Your task to perform on an android device: install app "Yahoo Mail" Image 0: 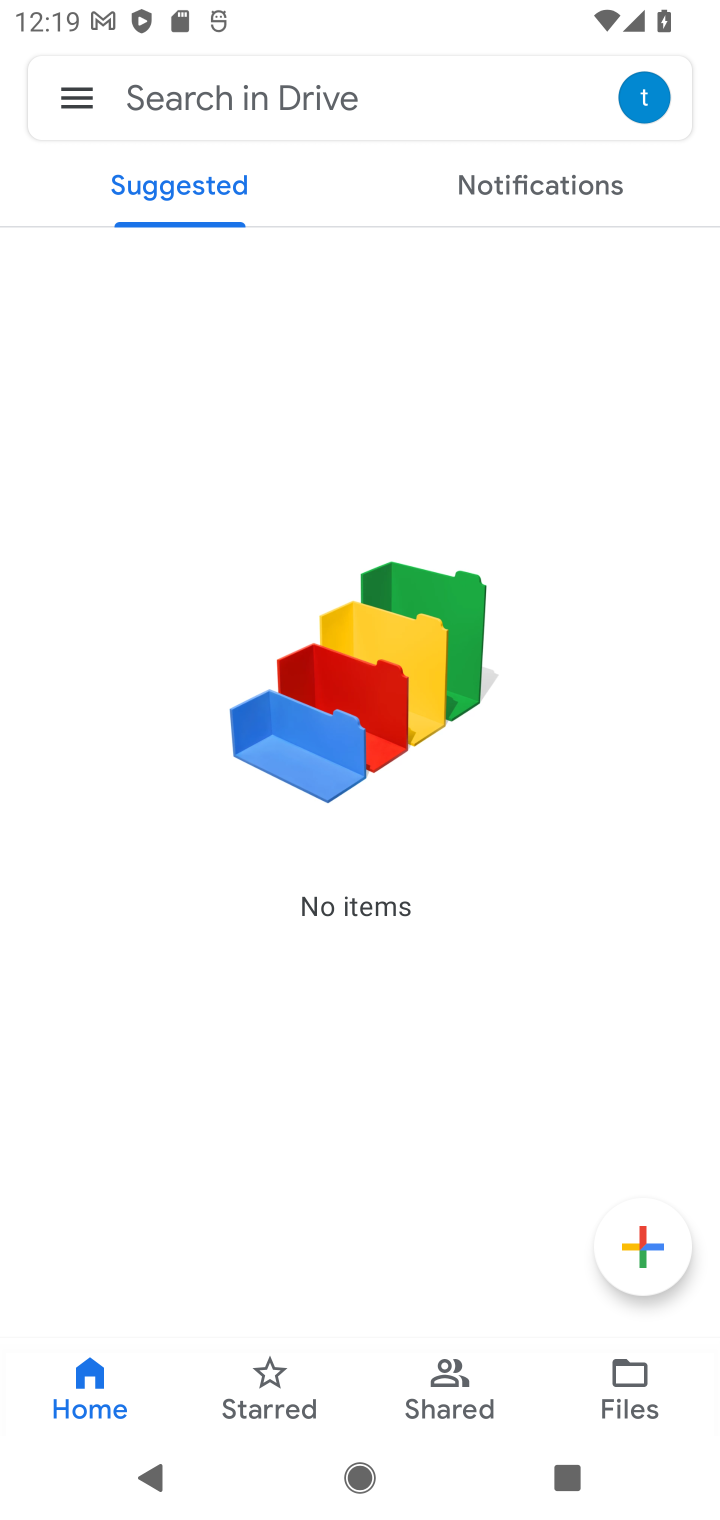
Step 0: press home button
Your task to perform on an android device: install app "Yahoo Mail" Image 1: 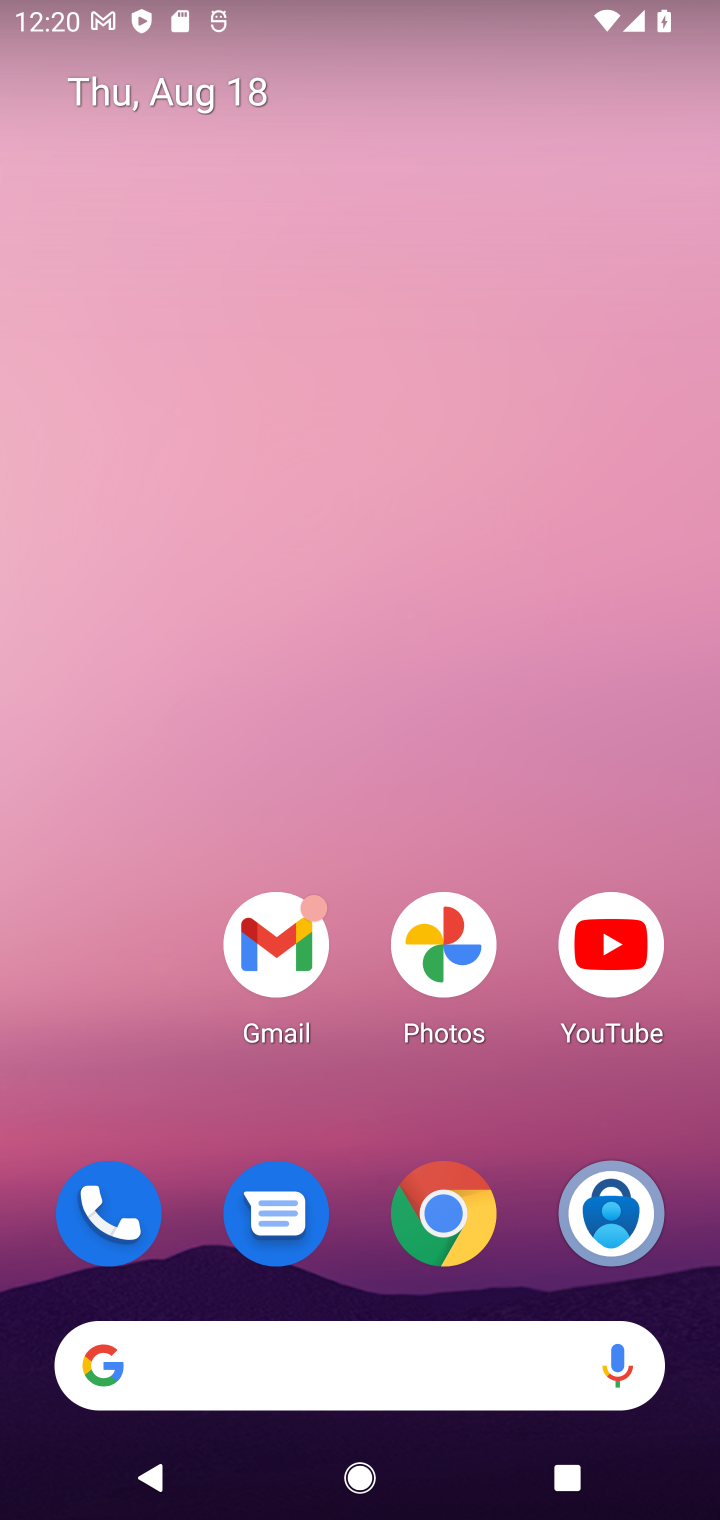
Step 1: drag from (363, 1311) to (337, 169)
Your task to perform on an android device: install app "Yahoo Mail" Image 2: 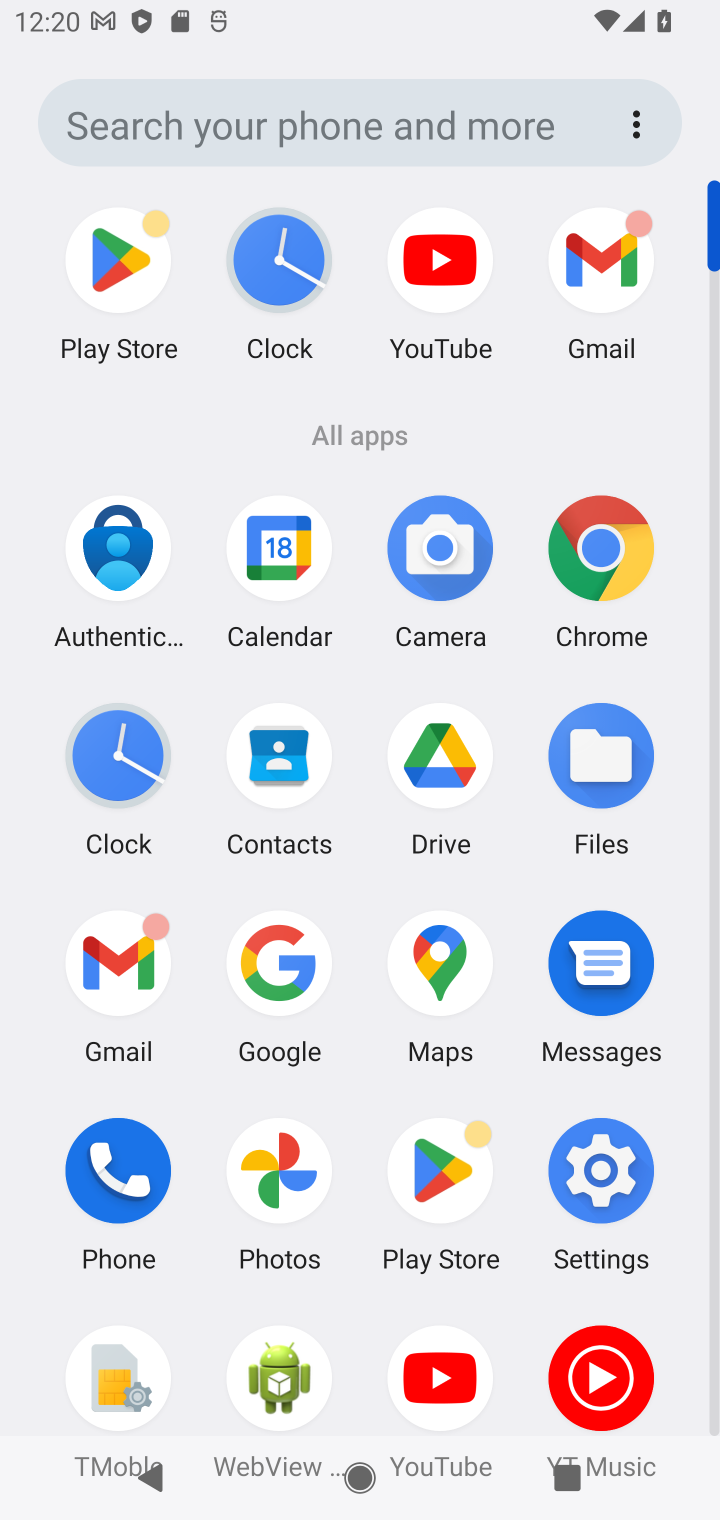
Step 2: click (133, 249)
Your task to perform on an android device: install app "Yahoo Mail" Image 3: 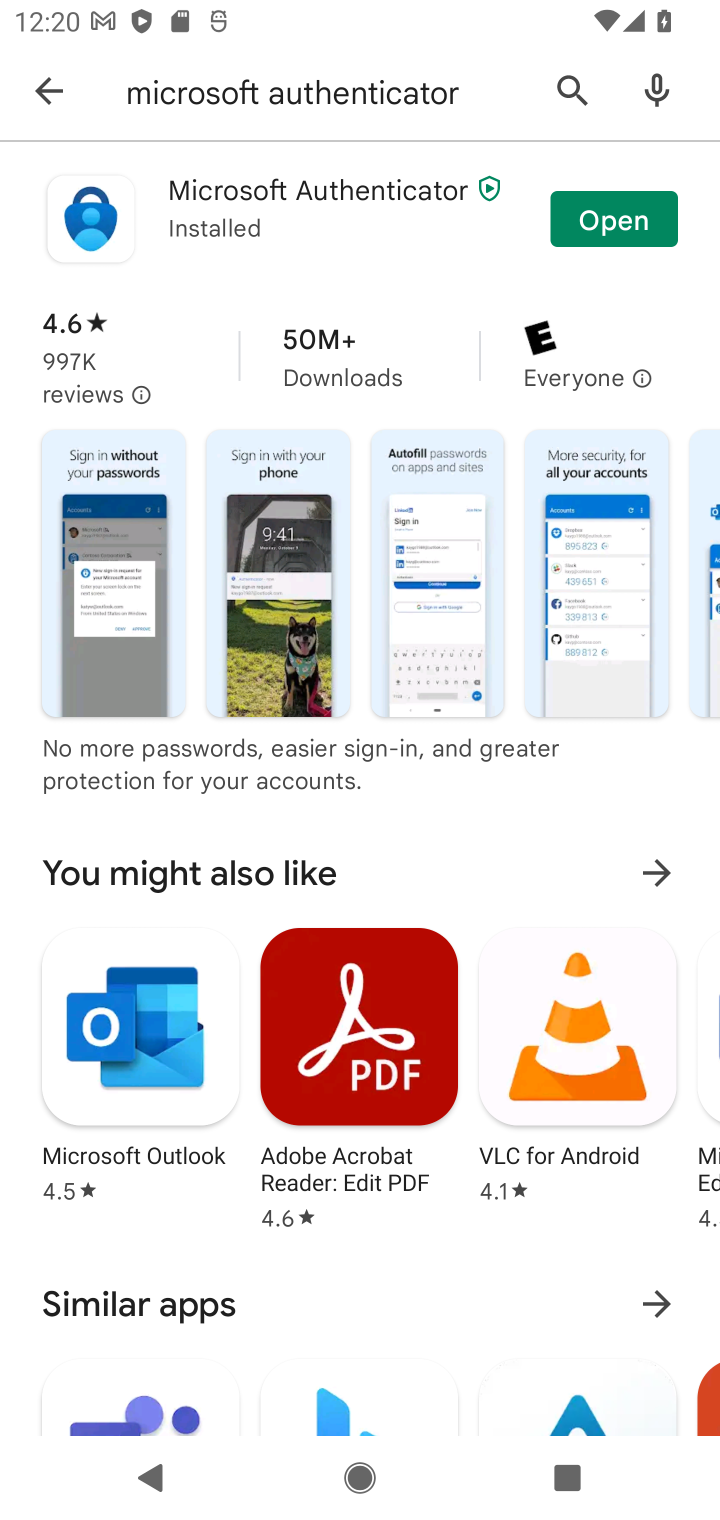
Step 3: press back button
Your task to perform on an android device: install app "Yahoo Mail" Image 4: 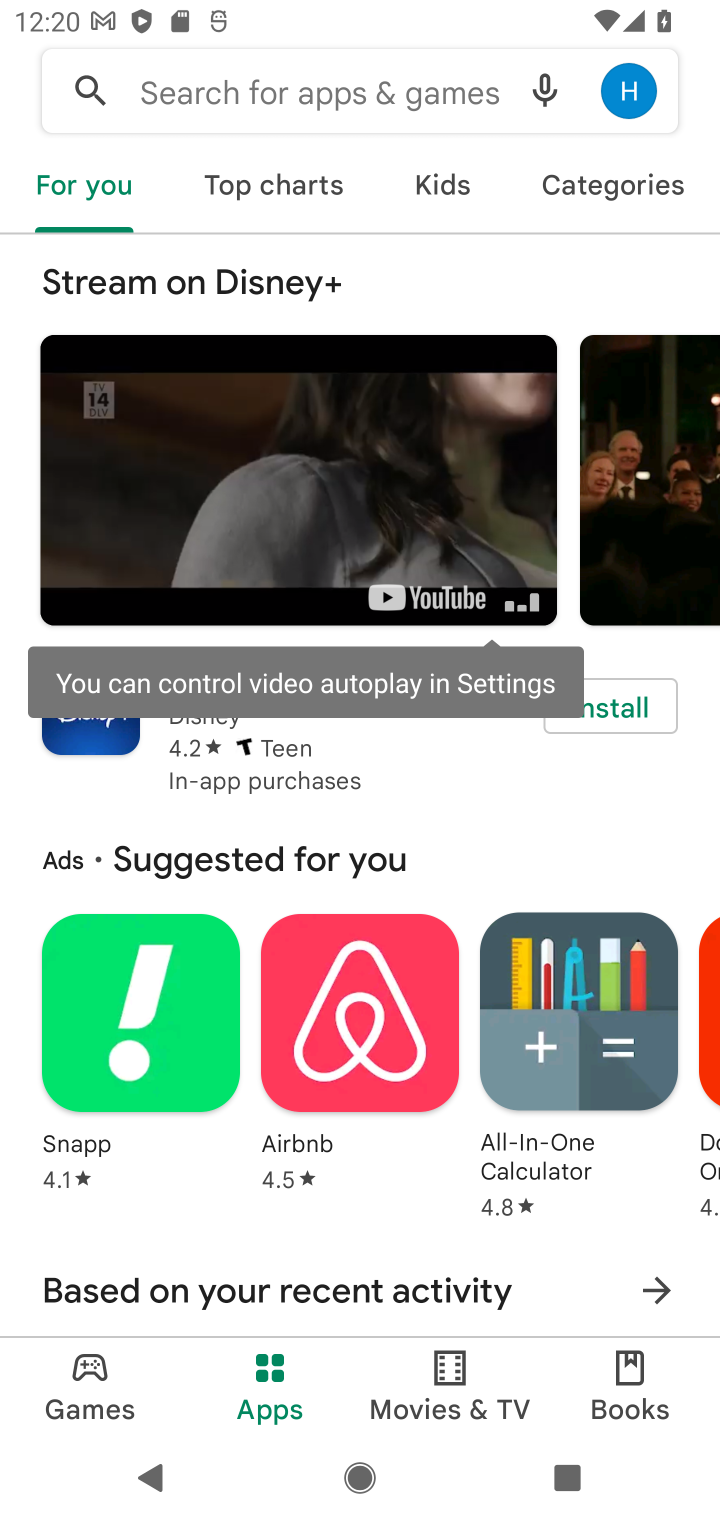
Step 4: click (309, 72)
Your task to perform on an android device: install app "Yahoo Mail" Image 5: 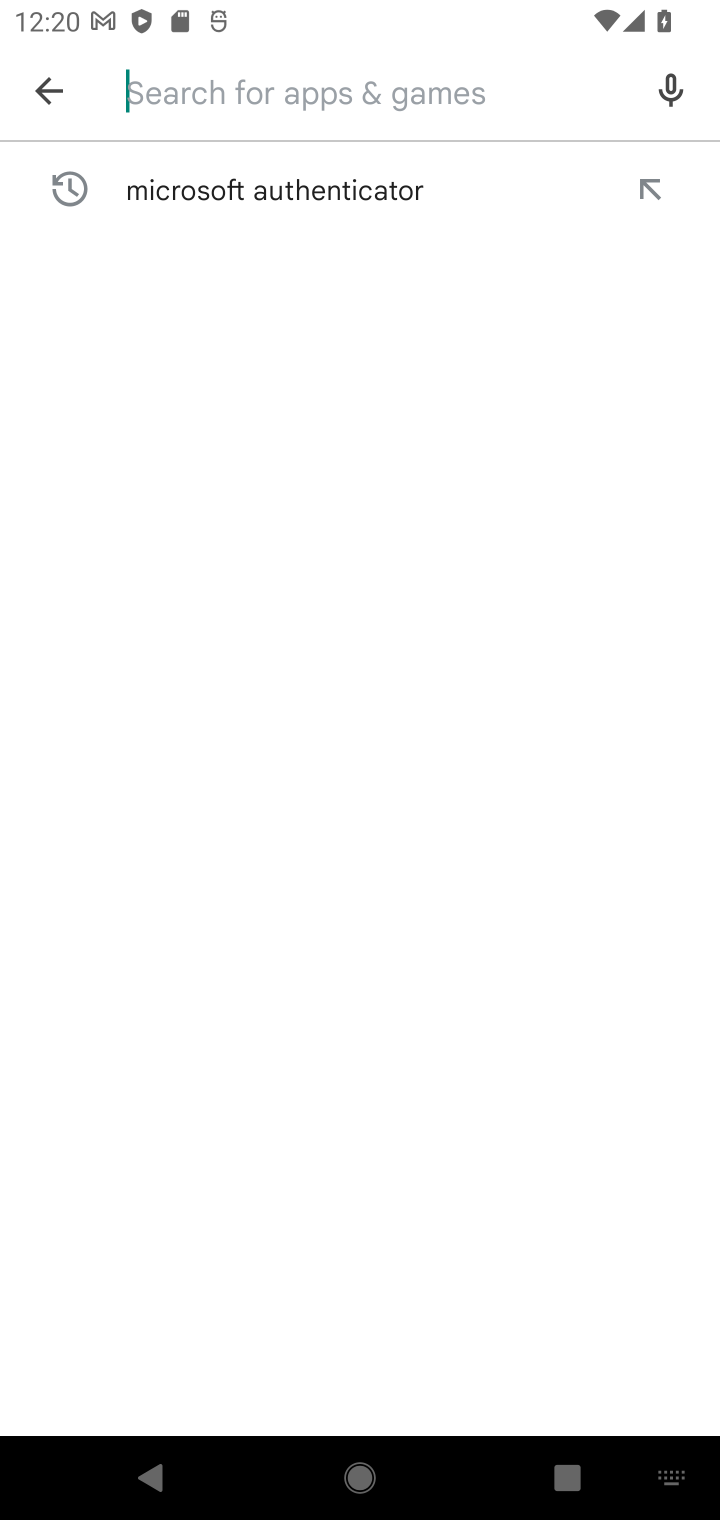
Step 5: type "Yahoo Mail"
Your task to perform on an android device: install app "Yahoo Mail" Image 6: 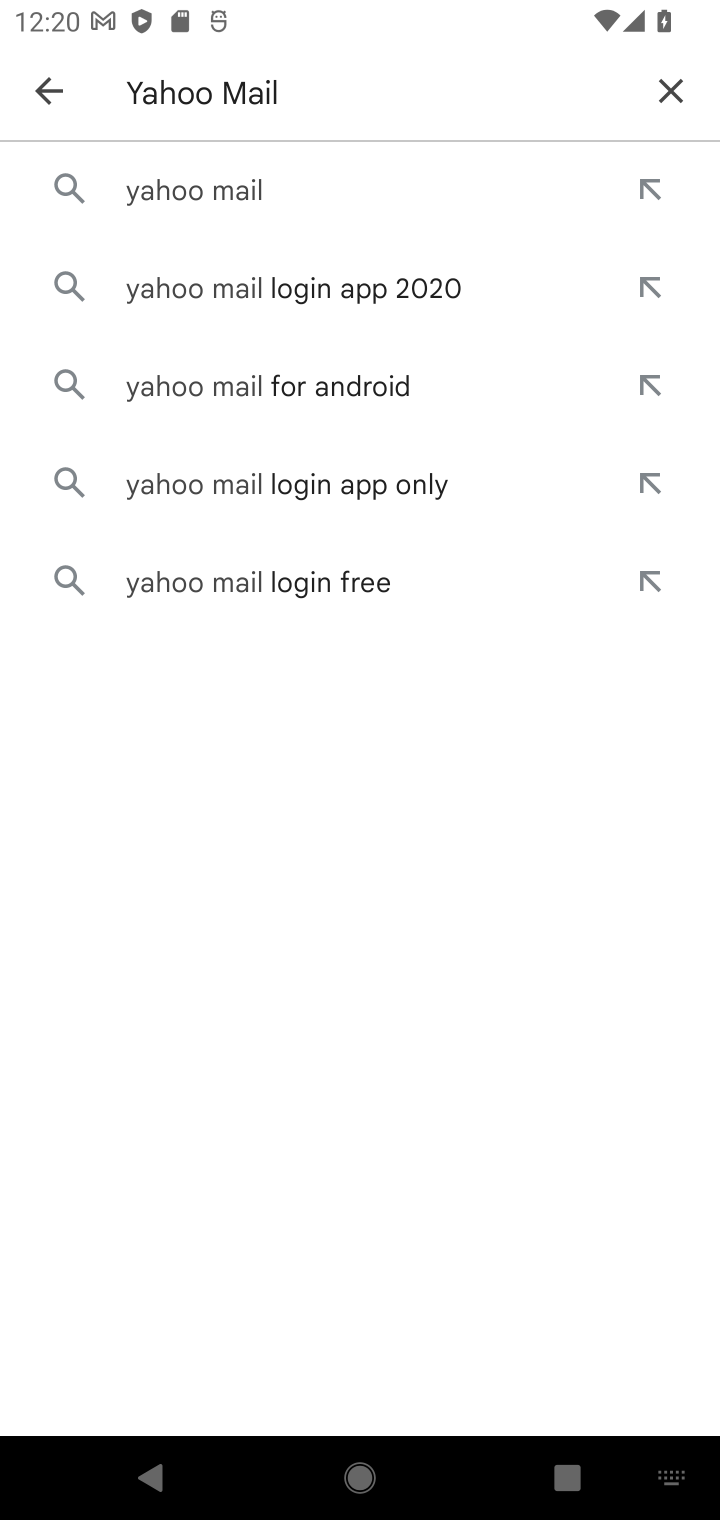
Step 6: click (146, 204)
Your task to perform on an android device: install app "Yahoo Mail" Image 7: 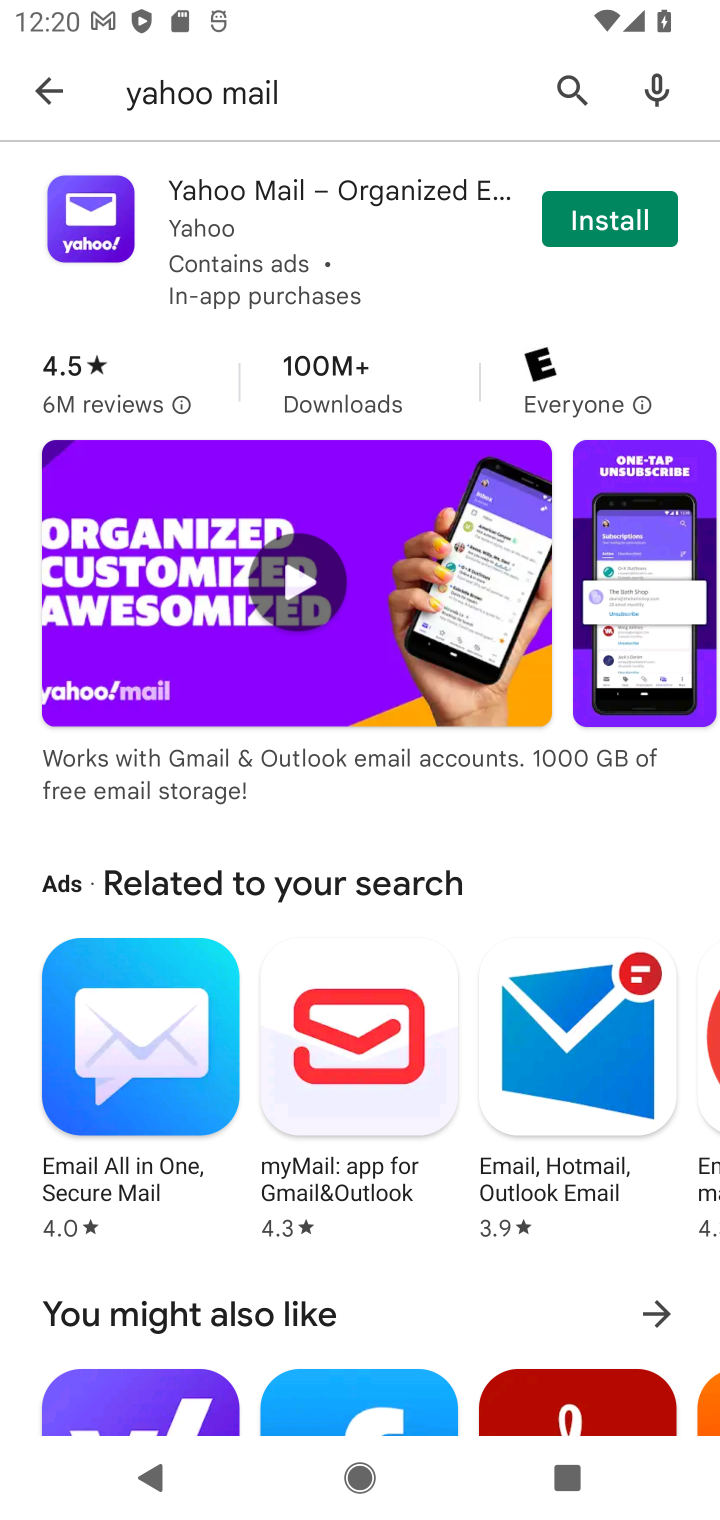
Step 7: click (626, 231)
Your task to perform on an android device: install app "Yahoo Mail" Image 8: 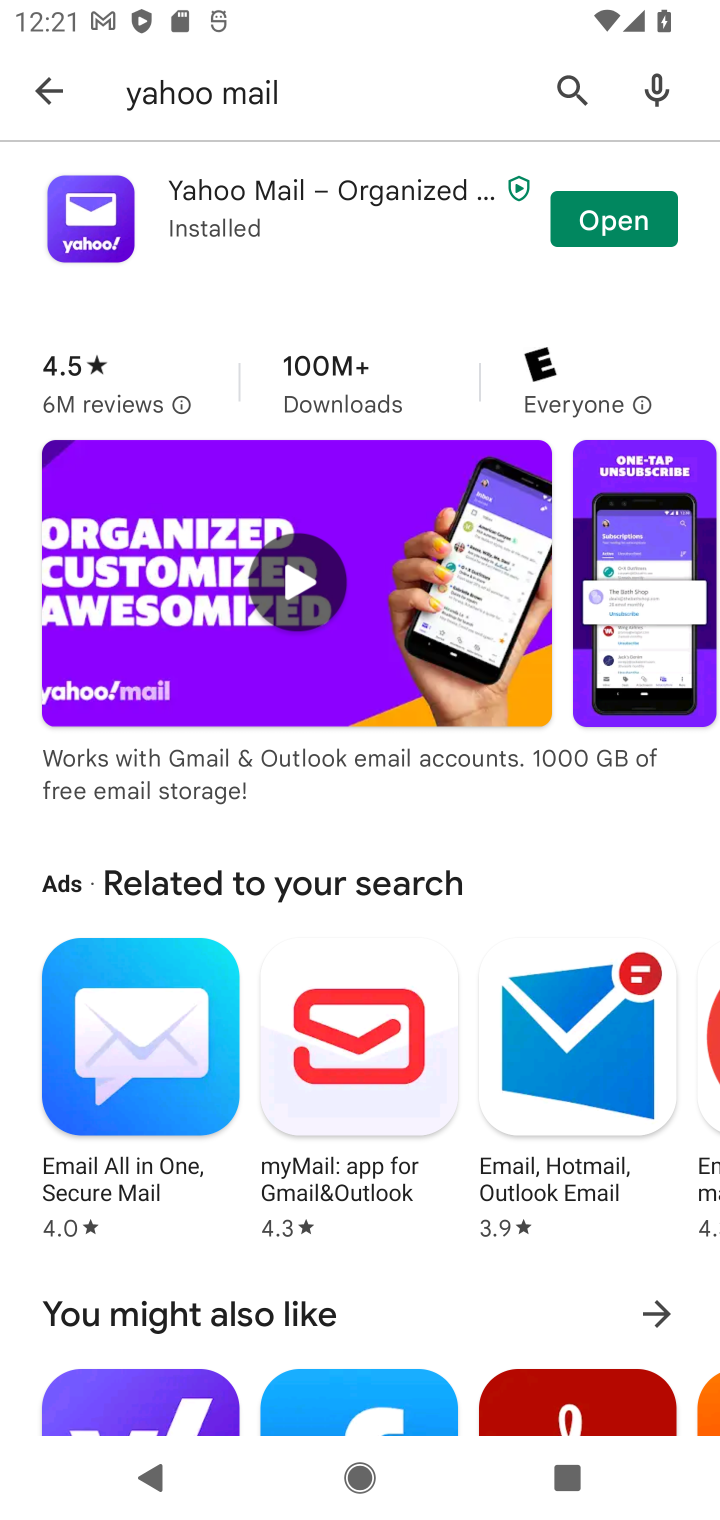
Step 8: task complete